Your task to perform on an android device: Go to Google maps Image 0: 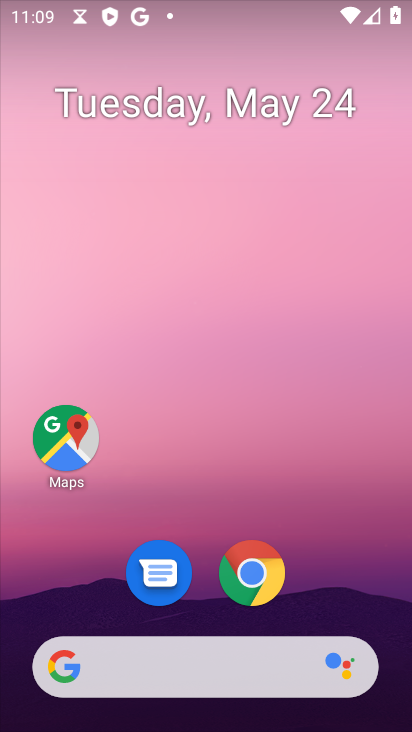
Step 0: click (79, 442)
Your task to perform on an android device: Go to Google maps Image 1: 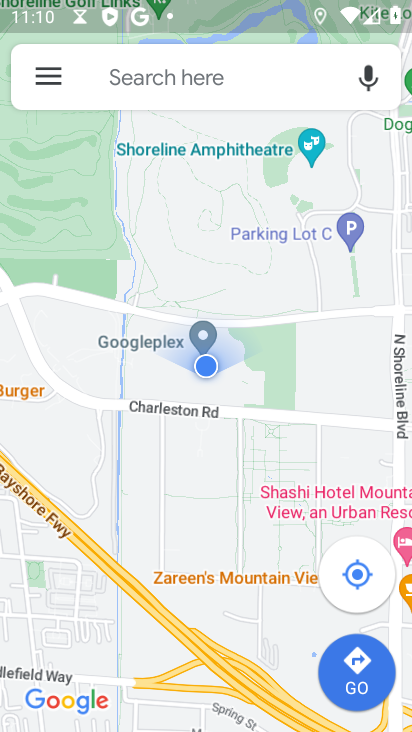
Step 1: task complete